Your task to perform on an android device: Check the weather Image 0: 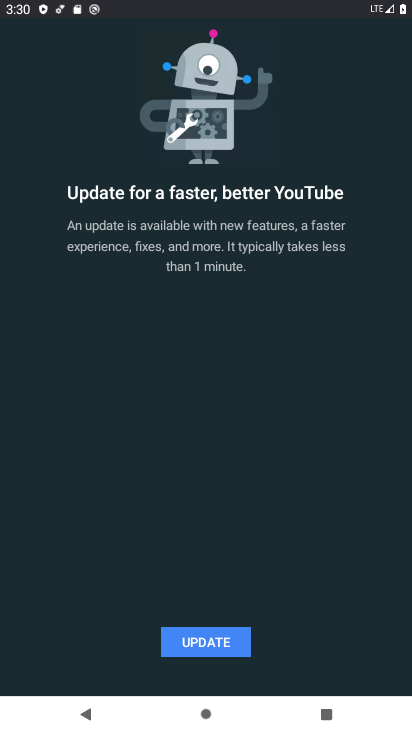
Step 0: press back button
Your task to perform on an android device: Check the weather Image 1: 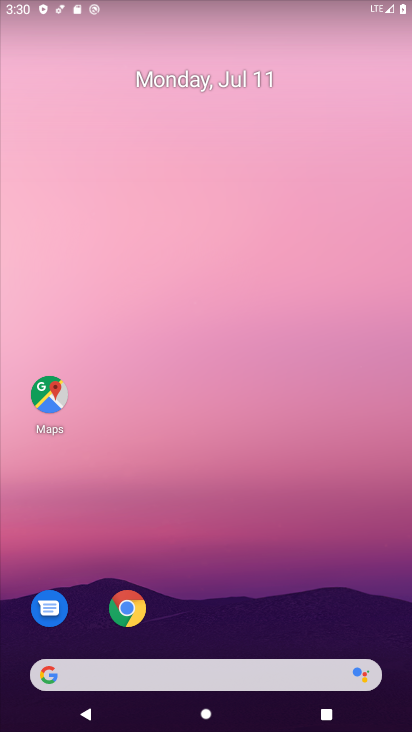
Step 1: click (216, 672)
Your task to perform on an android device: Check the weather Image 2: 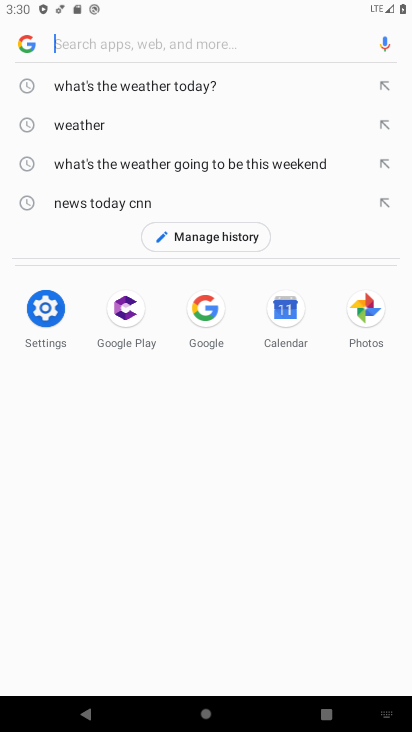
Step 2: click (85, 129)
Your task to perform on an android device: Check the weather Image 3: 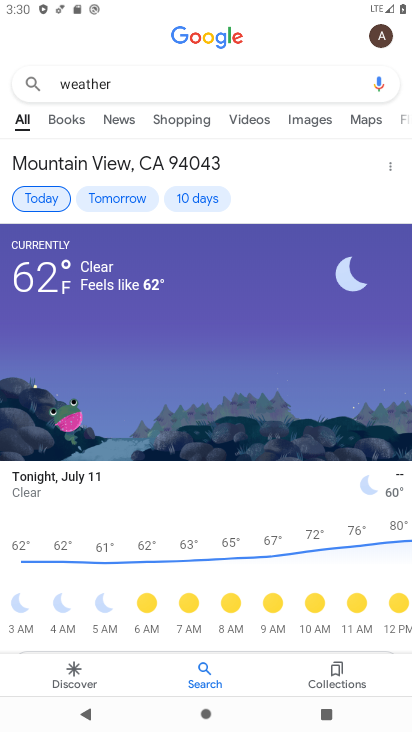
Step 3: task complete